Your task to perform on an android device: Search for seafood restaurants on Google Maps Image 0: 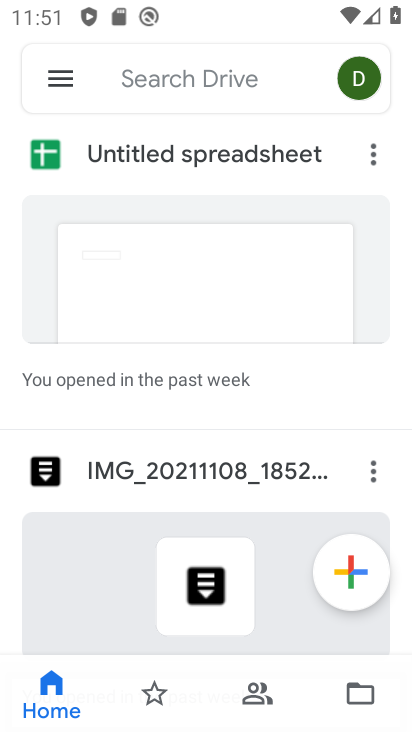
Step 0: task complete